Your task to perform on an android device: Search for flights from NYC to London Image 0: 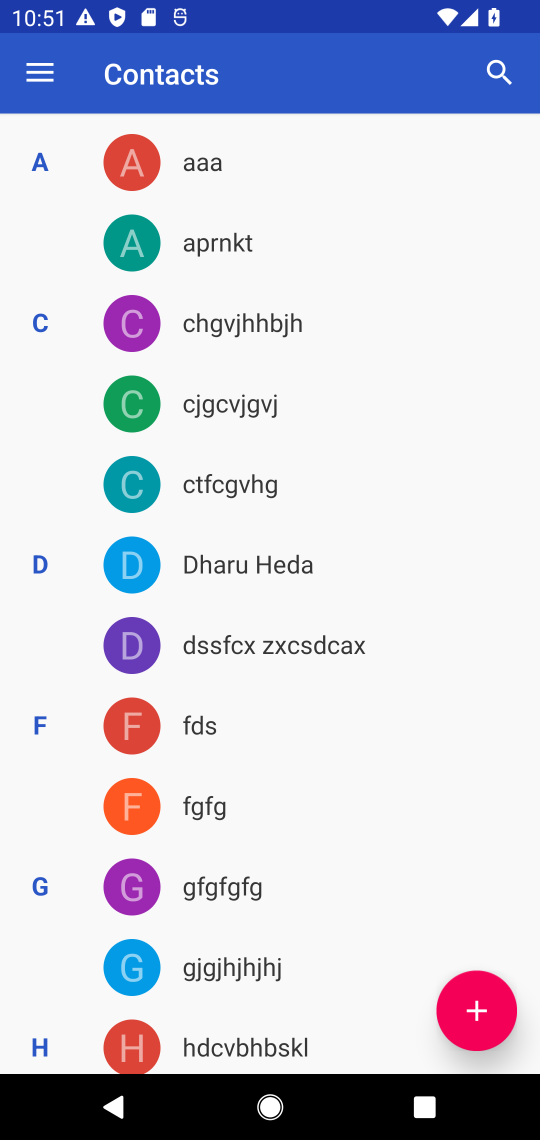
Step 0: press home button
Your task to perform on an android device: Search for flights from NYC to London Image 1: 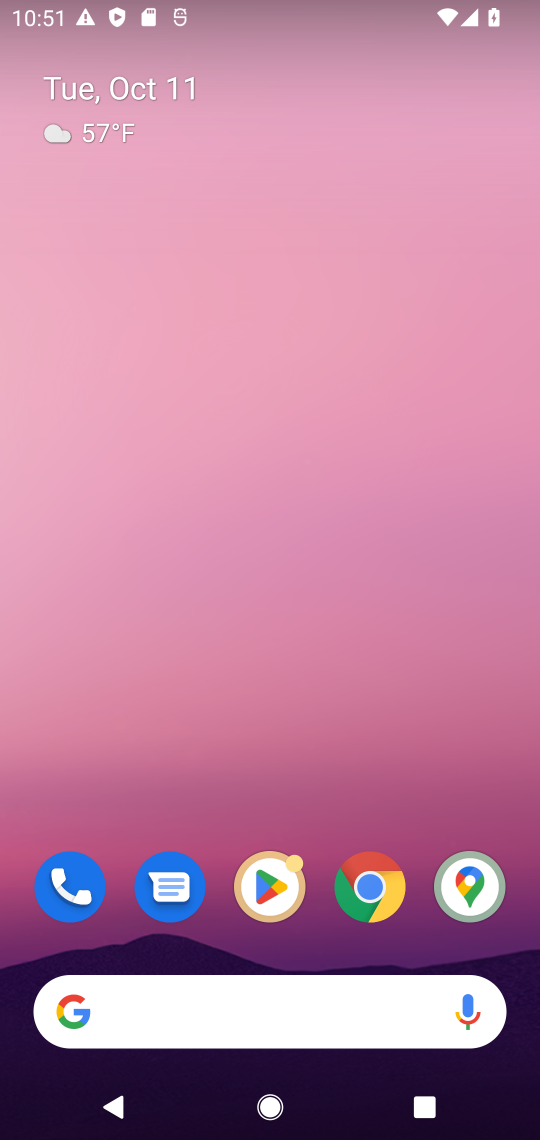
Step 1: click (195, 1037)
Your task to perform on an android device: Search for flights from NYC to London Image 2: 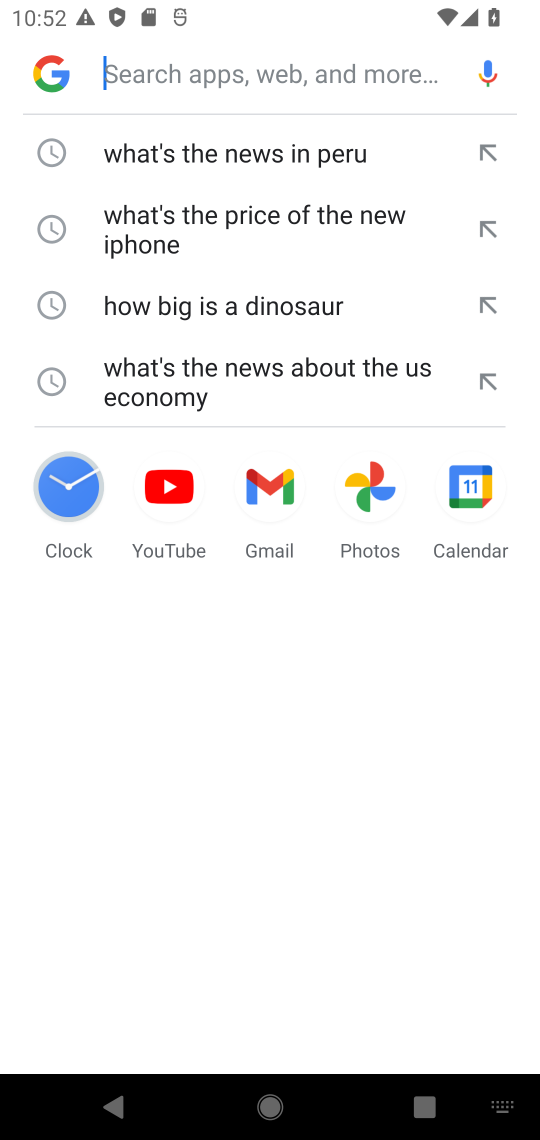
Step 2: type "flights from NYC to London"
Your task to perform on an android device: Search for flights from NYC to London Image 3: 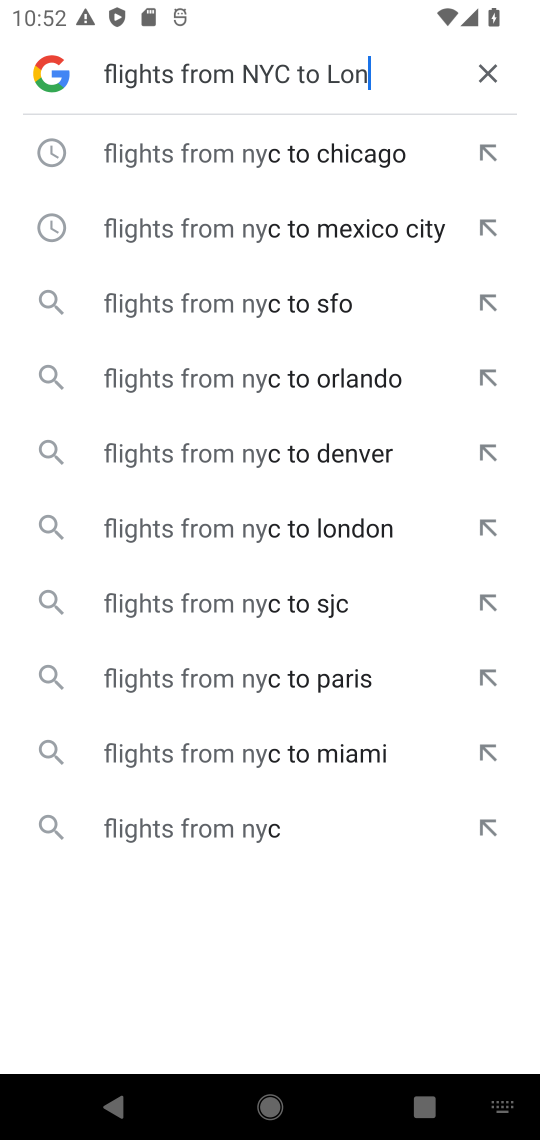
Step 3: press enter
Your task to perform on an android device: Search for flights from NYC to London Image 4: 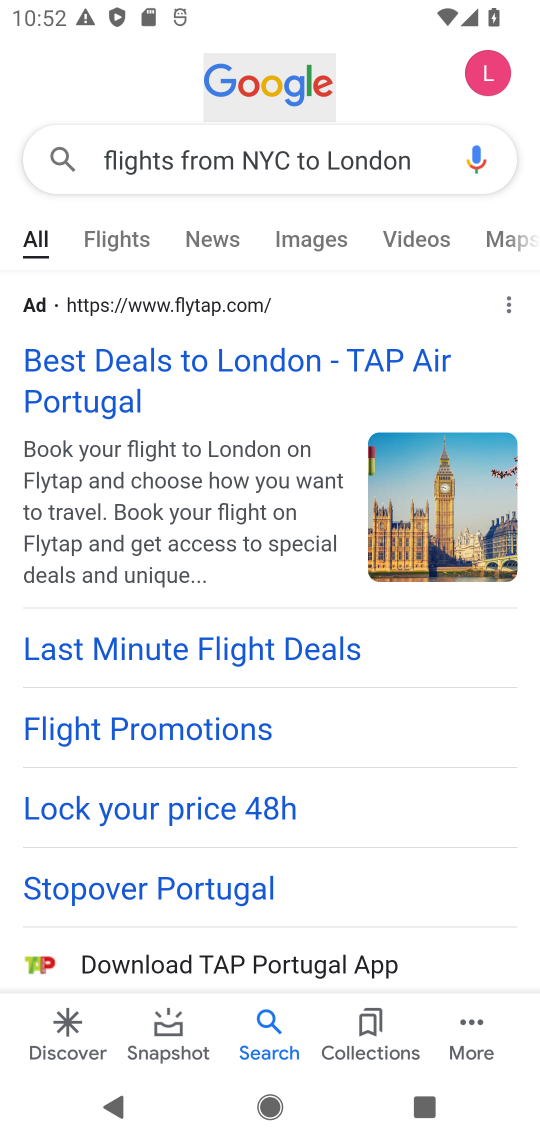
Step 4: drag from (329, 795) to (314, 566)
Your task to perform on an android device: Search for flights from NYC to London Image 5: 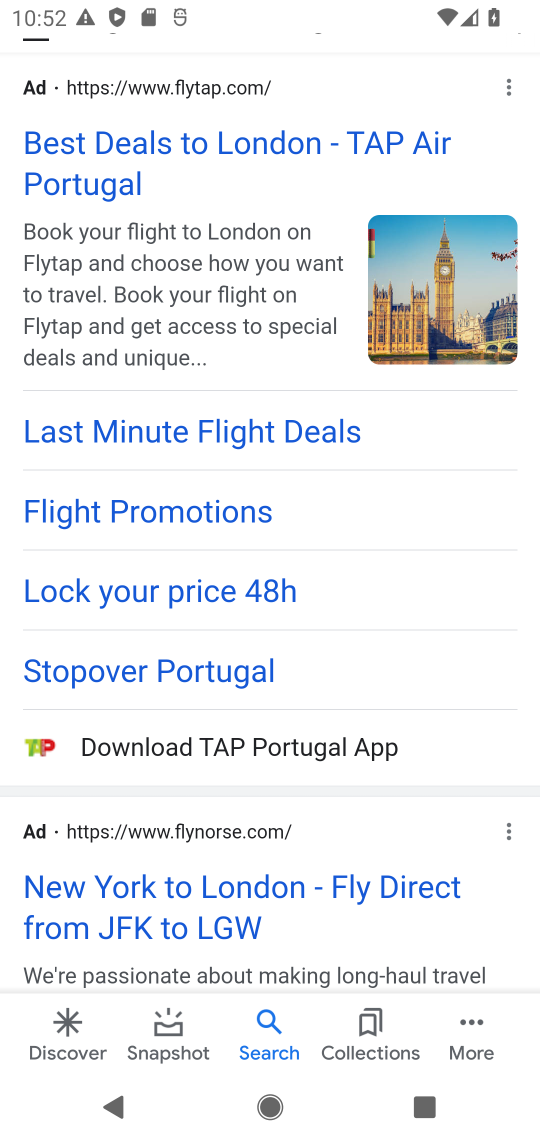
Step 5: drag from (283, 823) to (270, 471)
Your task to perform on an android device: Search for flights from NYC to London Image 6: 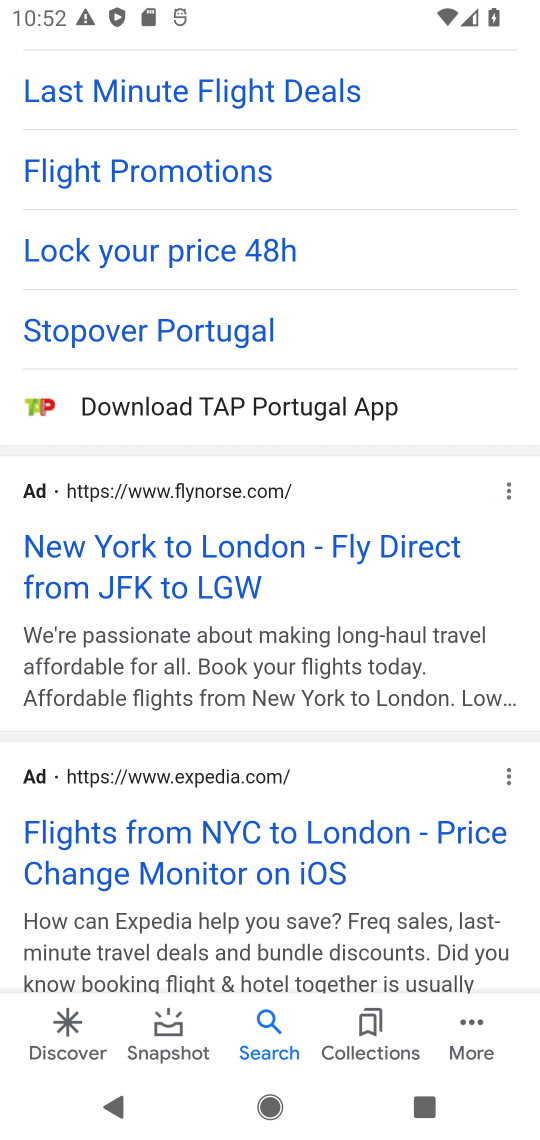
Step 6: drag from (336, 743) to (341, 478)
Your task to perform on an android device: Search for flights from NYC to London Image 7: 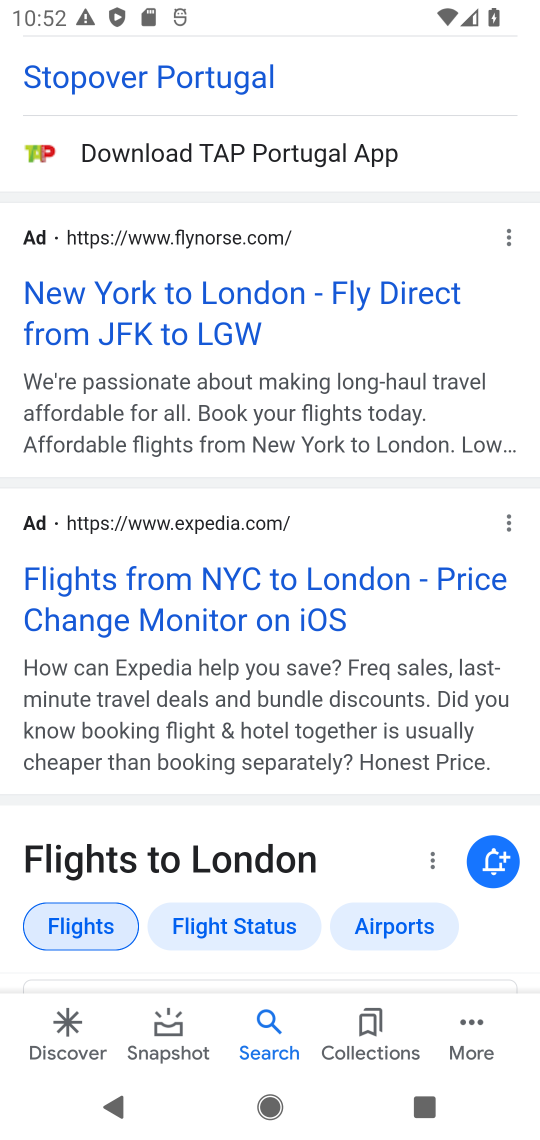
Step 7: drag from (357, 745) to (355, 303)
Your task to perform on an android device: Search for flights from NYC to London Image 8: 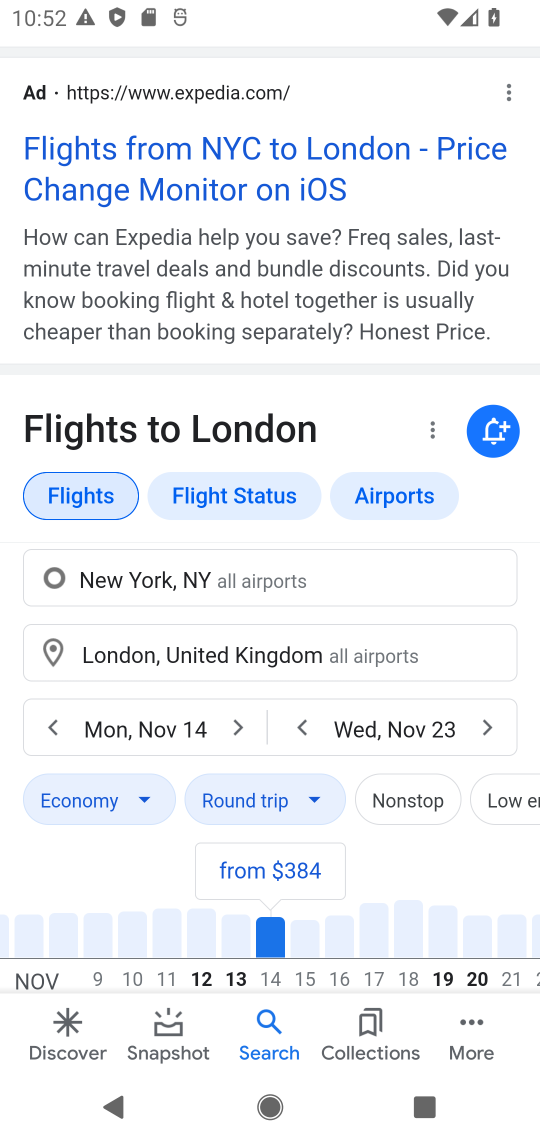
Step 8: drag from (379, 693) to (387, 368)
Your task to perform on an android device: Search for flights from NYC to London Image 9: 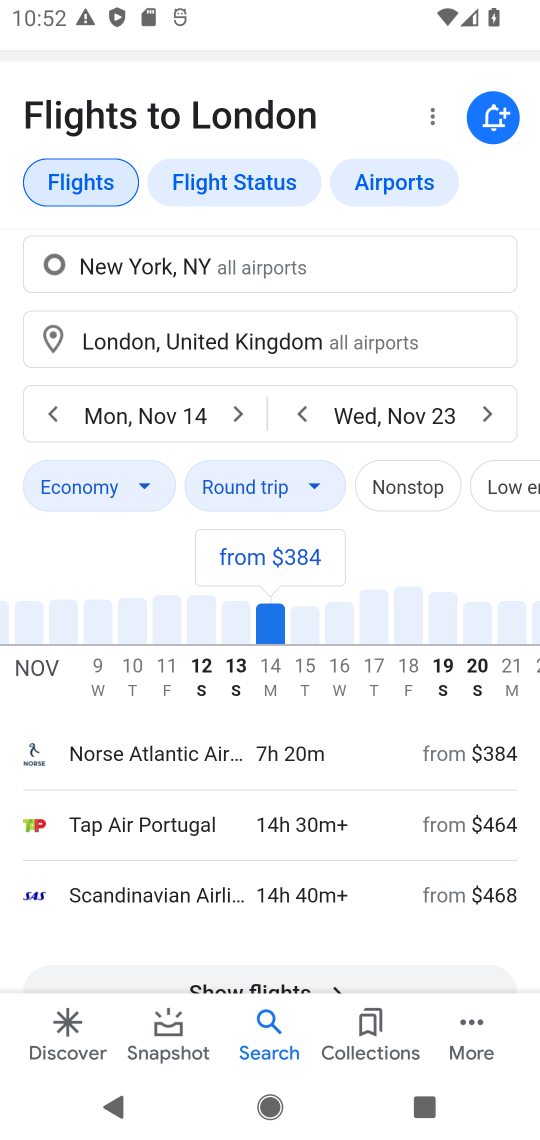
Step 9: drag from (328, 779) to (345, 467)
Your task to perform on an android device: Search for flights from NYC to London Image 10: 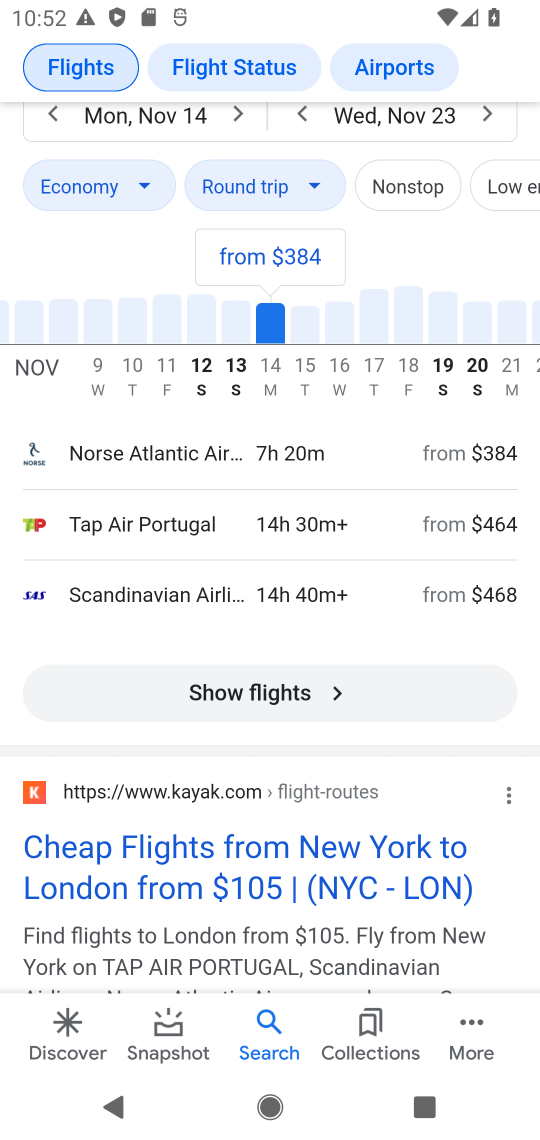
Step 10: click (277, 688)
Your task to perform on an android device: Search for flights from NYC to London Image 11: 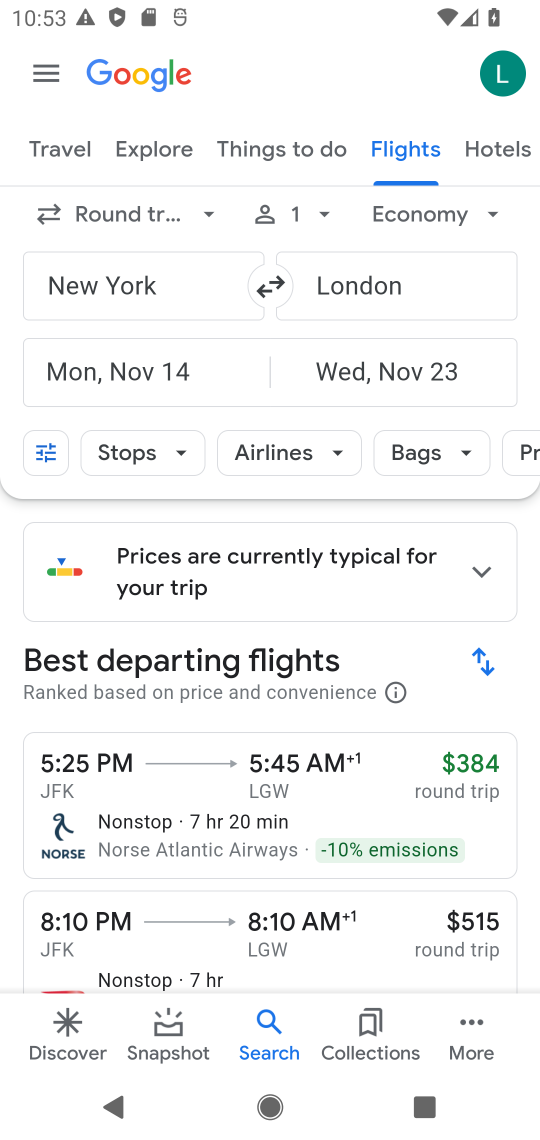
Step 11: task complete